Your task to perform on an android device: clear all cookies in the chrome app Image 0: 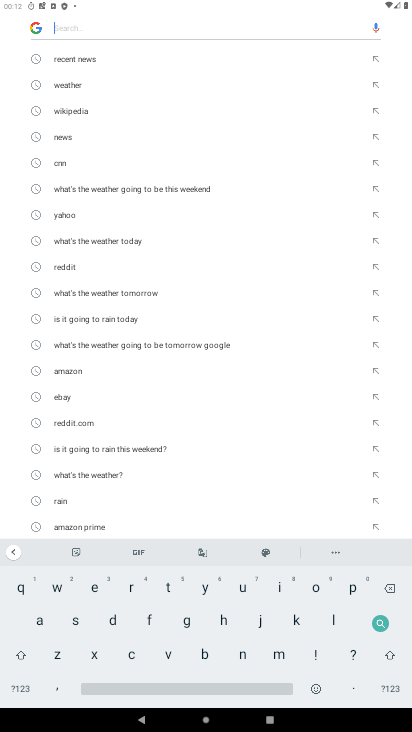
Step 0: press home button
Your task to perform on an android device: clear all cookies in the chrome app Image 1: 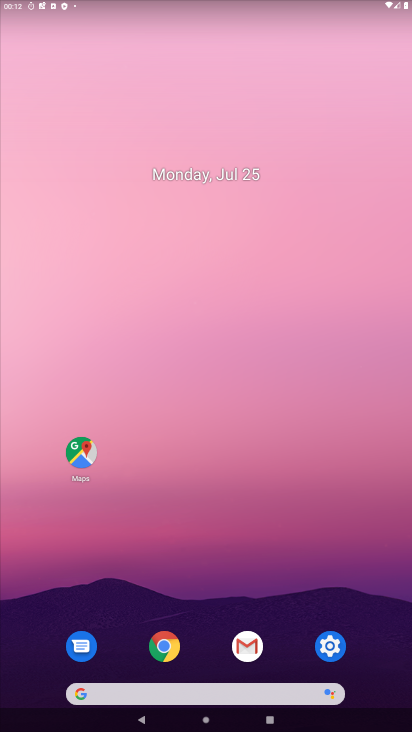
Step 1: click (177, 641)
Your task to perform on an android device: clear all cookies in the chrome app Image 2: 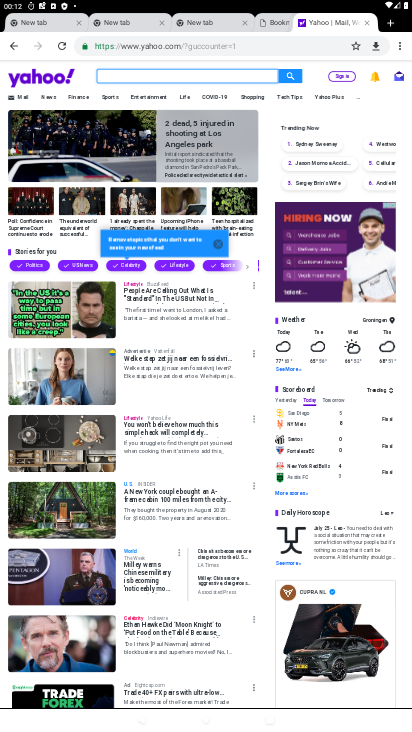
Step 2: click (399, 54)
Your task to perform on an android device: clear all cookies in the chrome app Image 3: 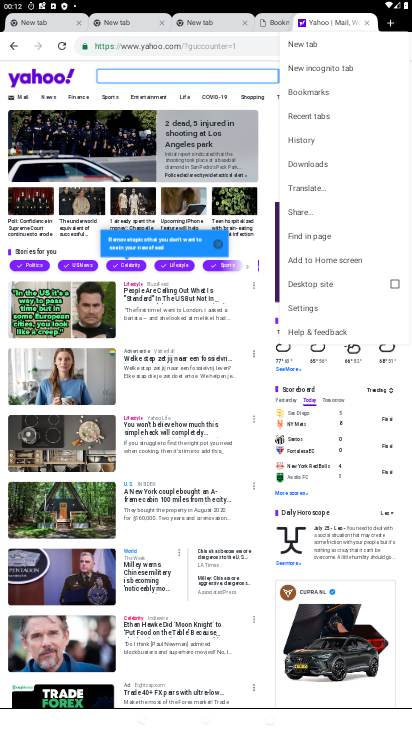
Step 3: click (306, 311)
Your task to perform on an android device: clear all cookies in the chrome app Image 4: 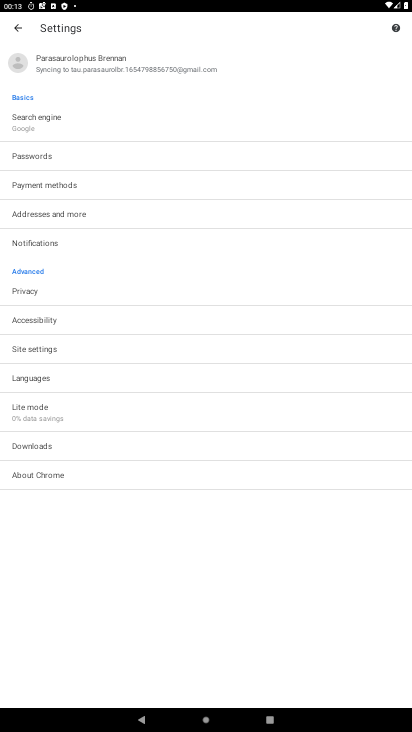
Step 4: click (56, 346)
Your task to perform on an android device: clear all cookies in the chrome app Image 5: 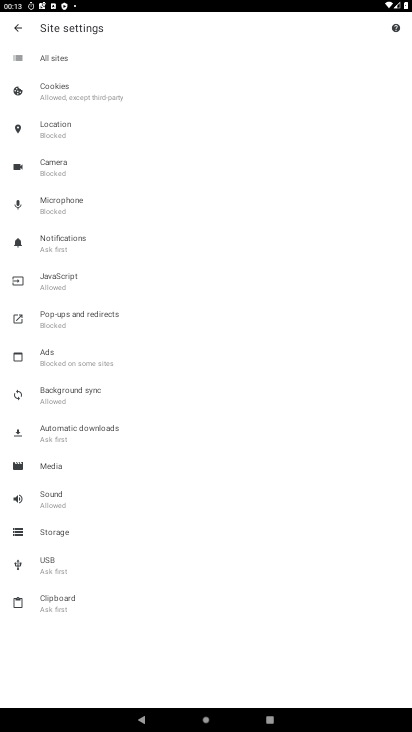
Step 5: click (79, 98)
Your task to perform on an android device: clear all cookies in the chrome app Image 6: 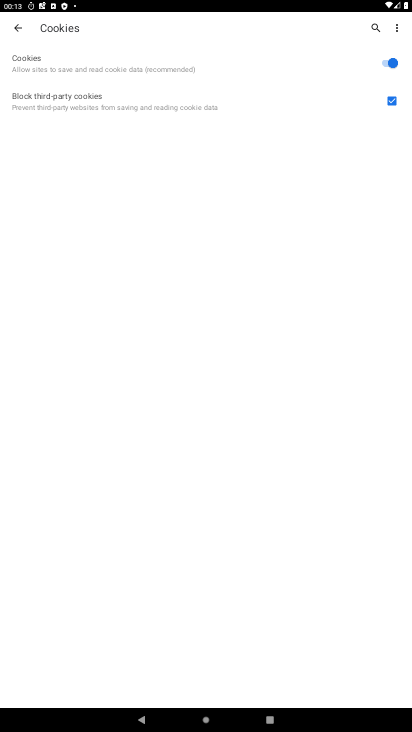
Step 6: click (319, 268)
Your task to perform on an android device: clear all cookies in the chrome app Image 7: 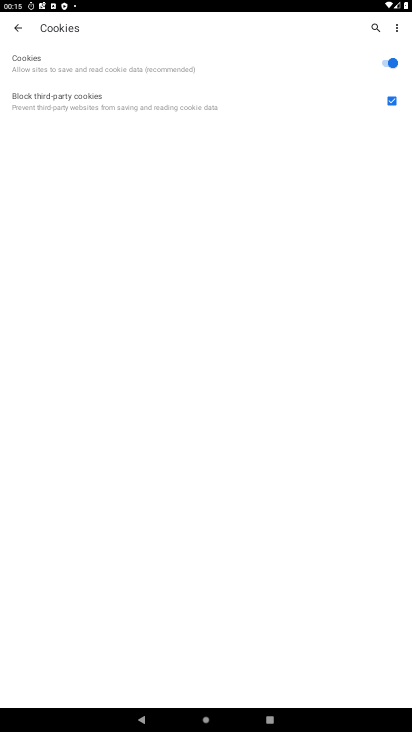
Step 7: task complete